Your task to perform on an android device: change notification settings in the gmail app Image 0: 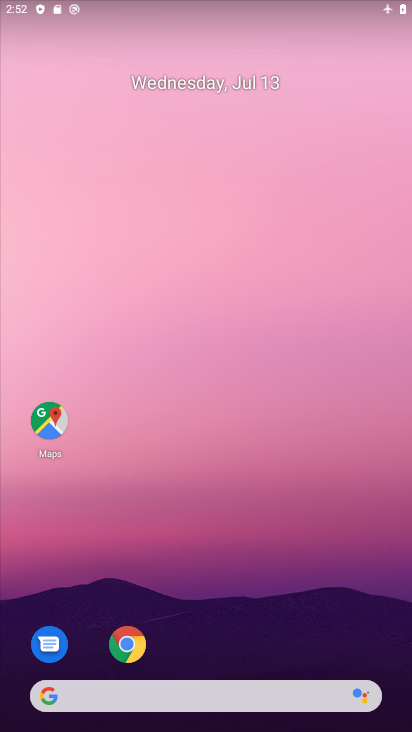
Step 0: drag from (194, 689) to (235, 130)
Your task to perform on an android device: change notification settings in the gmail app Image 1: 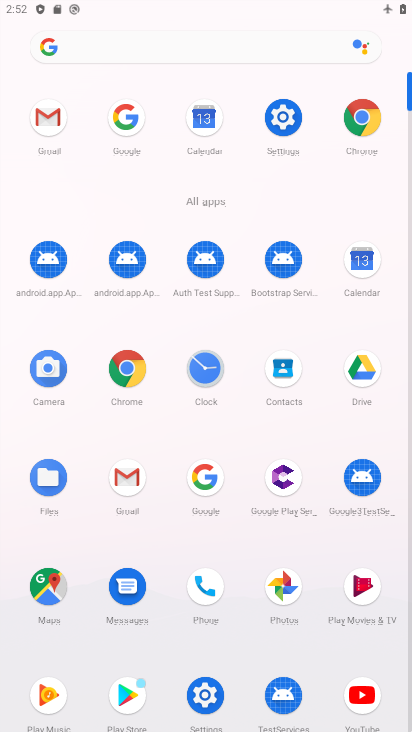
Step 1: click (47, 117)
Your task to perform on an android device: change notification settings in the gmail app Image 2: 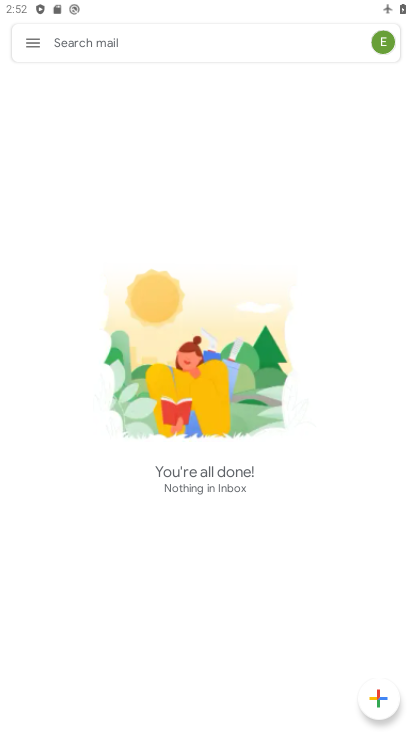
Step 2: click (34, 45)
Your task to perform on an android device: change notification settings in the gmail app Image 3: 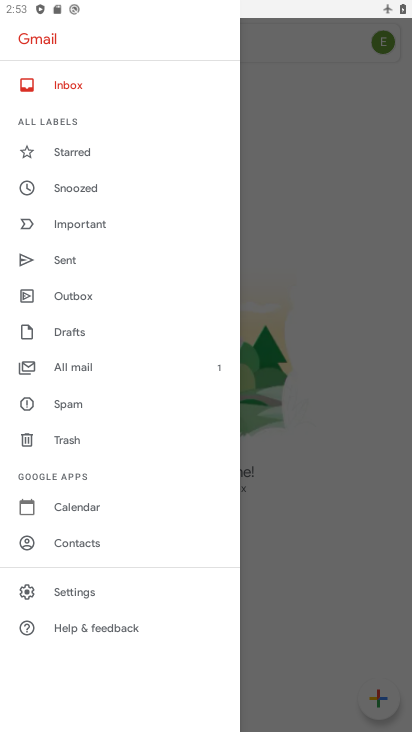
Step 3: click (71, 597)
Your task to perform on an android device: change notification settings in the gmail app Image 4: 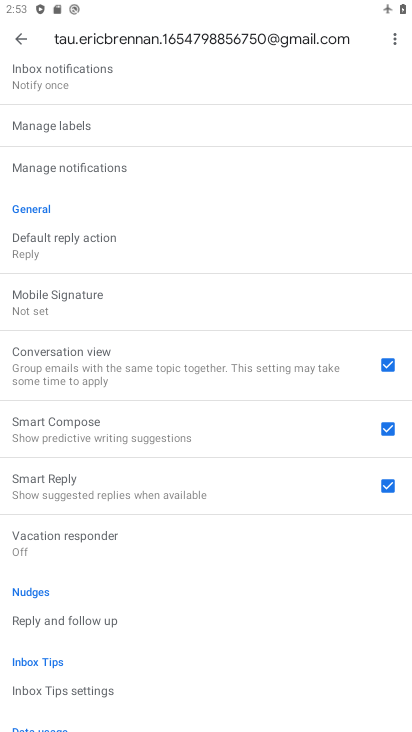
Step 4: click (117, 171)
Your task to perform on an android device: change notification settings in the gmail app Image 5: 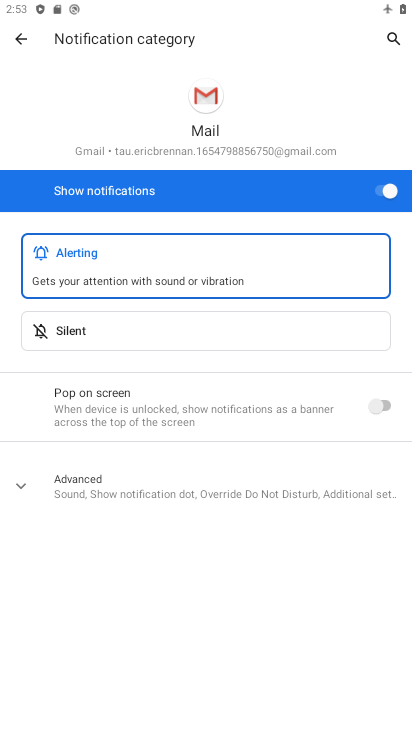
Step 5: click (382, 195)
Your task to perform on an android device: change notification settings in the gmail app Image 6: 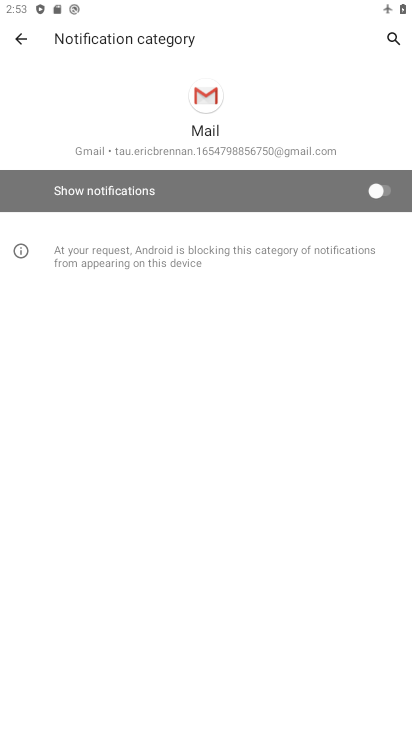
Step 6: task complete